Your task to perform on an android device: turn on priority inbox in the gmail app Image 0: 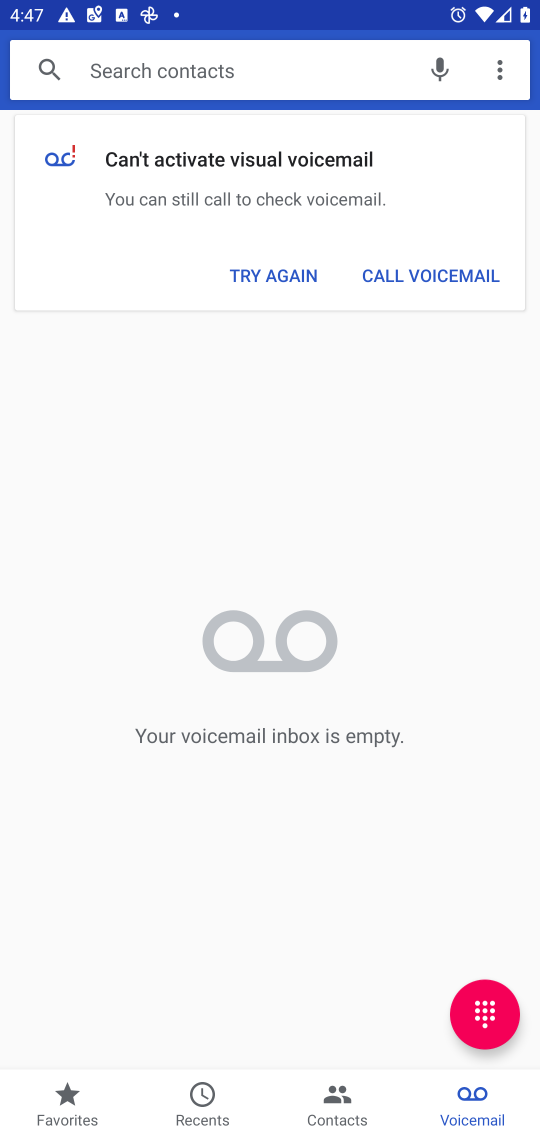
Step 0: press home button
Your task to perform on an android device: turn on priority inbox in the gmail app Image 1: 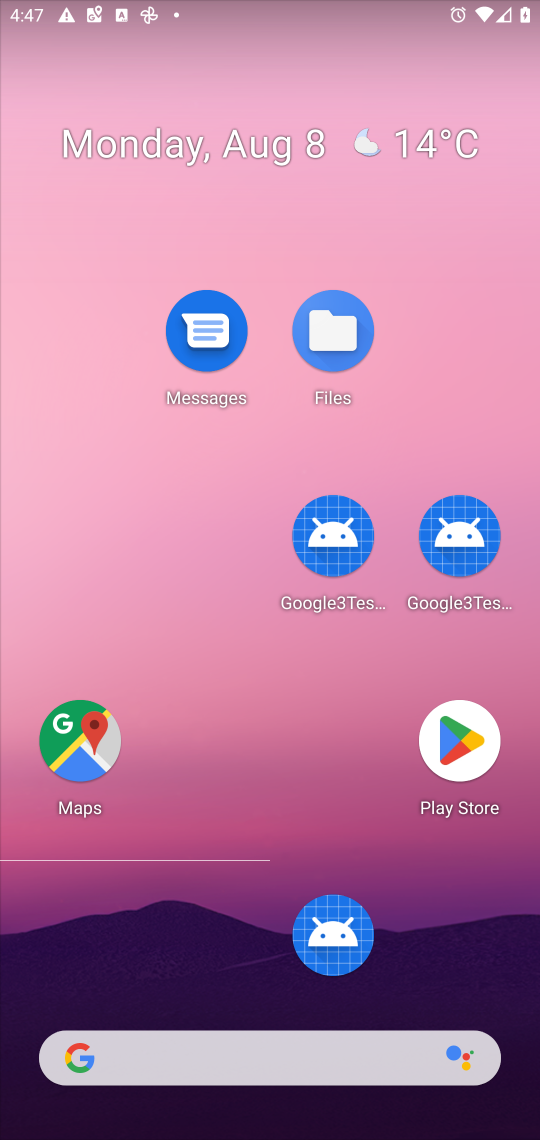
Step 1: drag from (374, 1055) to (443, 60)
Your task to perform on an android device: turn on priority inbox in the gmail app Image 2: 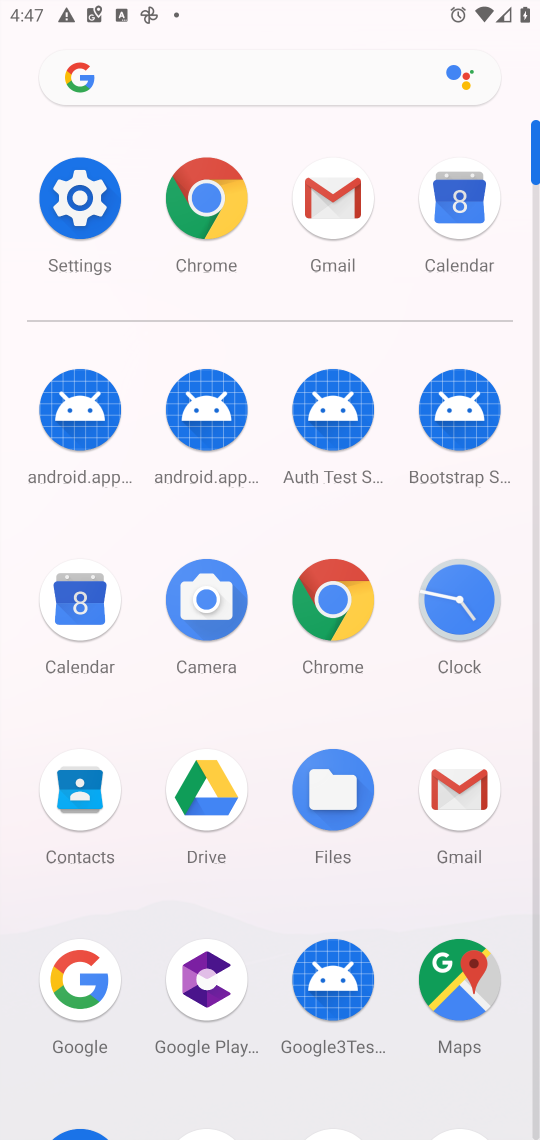
Step 2: click (466, 796)
Your task to perform on an android device: turn on priority inbox in the gmail app Image 3: 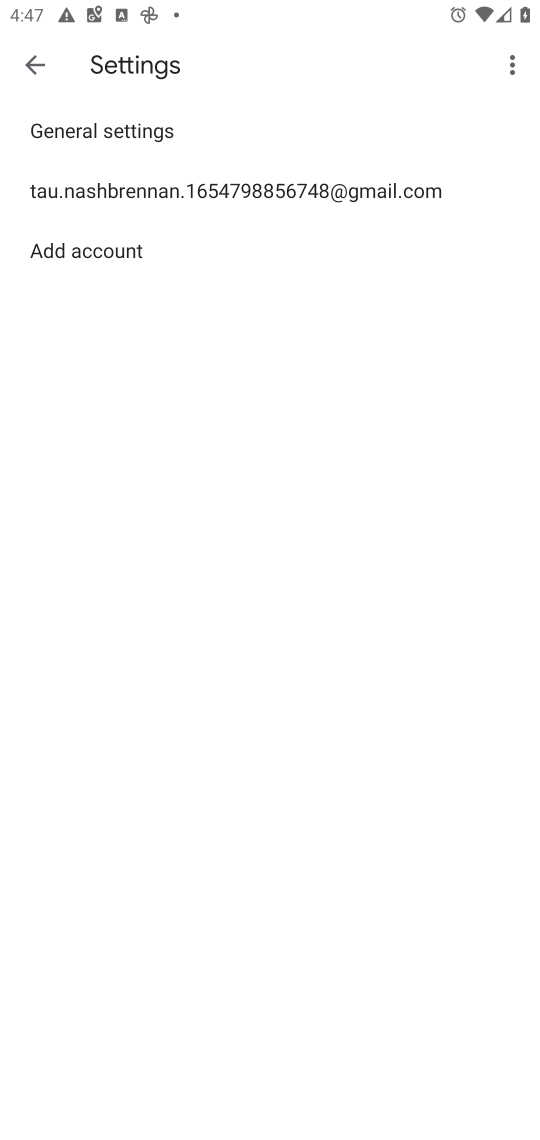
Step 3: click (360, 184)
Your task to perform on an android device: turn on priority inbox in the gmail app Image 4: 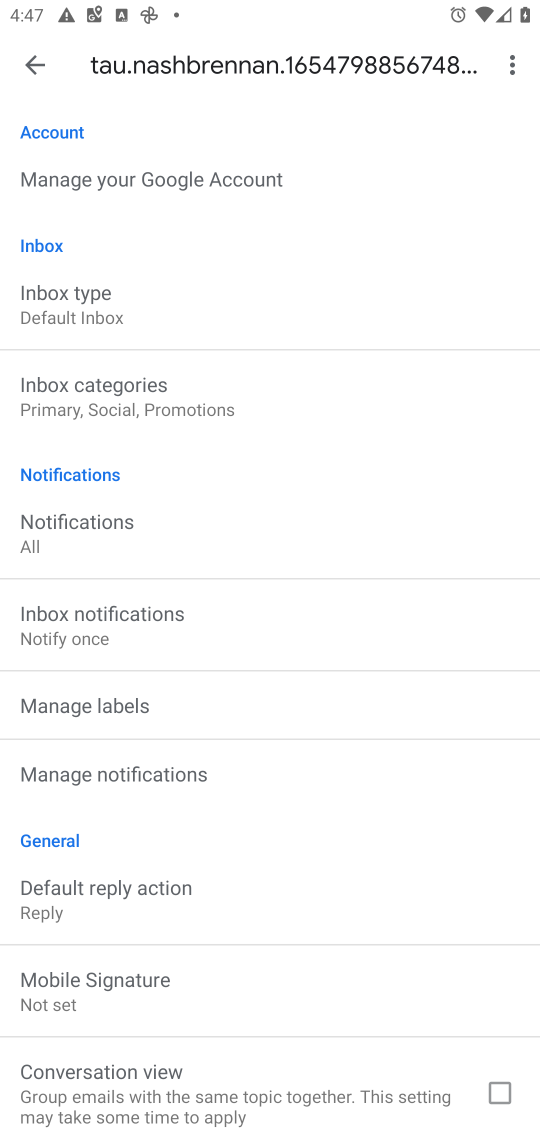
Step 4: drag from (240, 226) to (221, 812)
Your task to perform on an android device: turn on priority inbox in the gmail app Image 5: 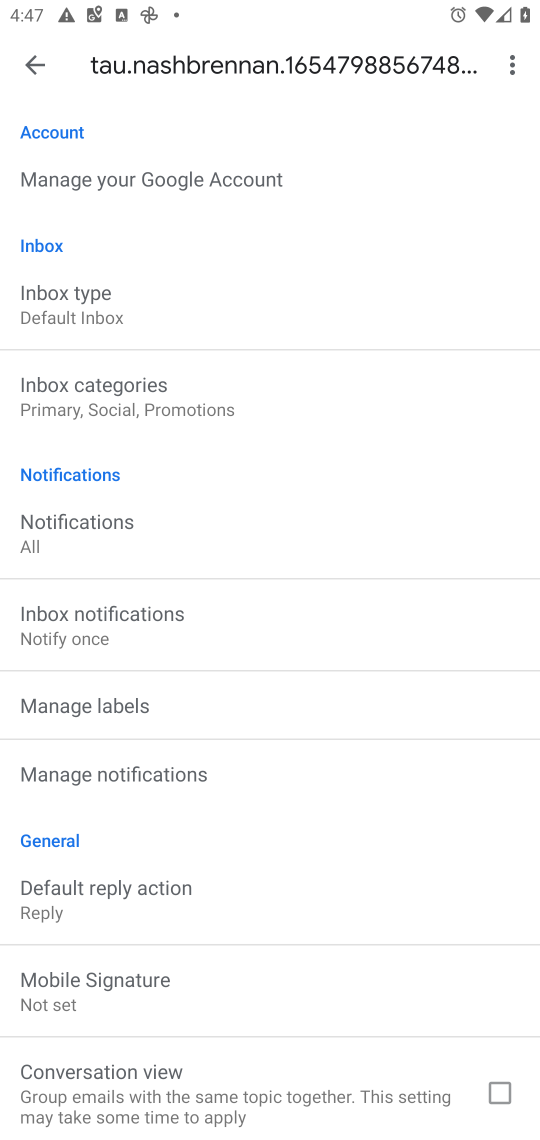
Step 5: click (84, 284)
Your task to perform on an android device: turn on priority inbox in the gmail app Image 6: 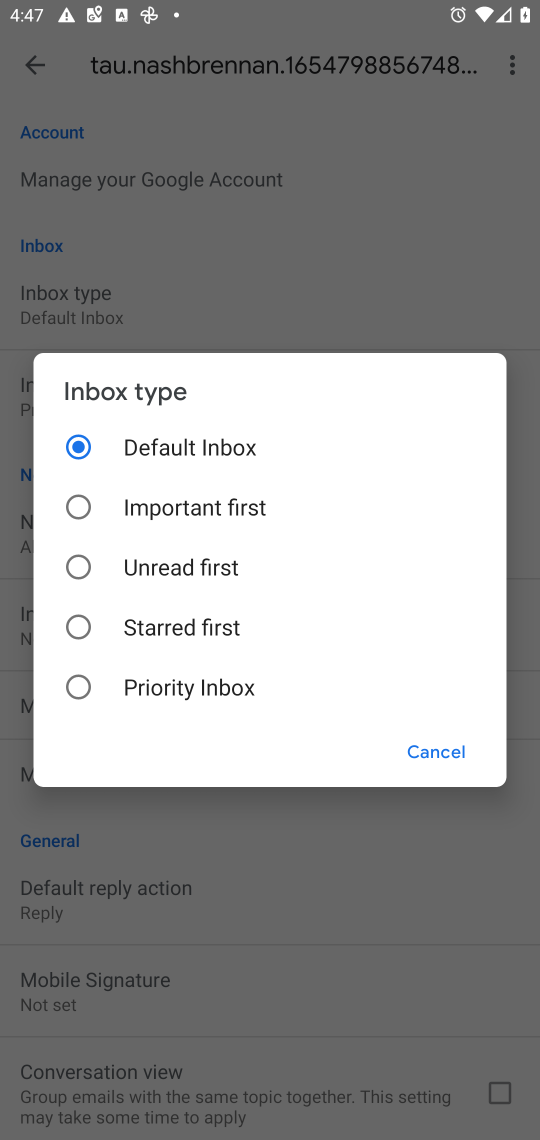
Step 6: click (77, 687)
Your task to perform on an android device: turn on priority inbox in the gmail app Image 7: 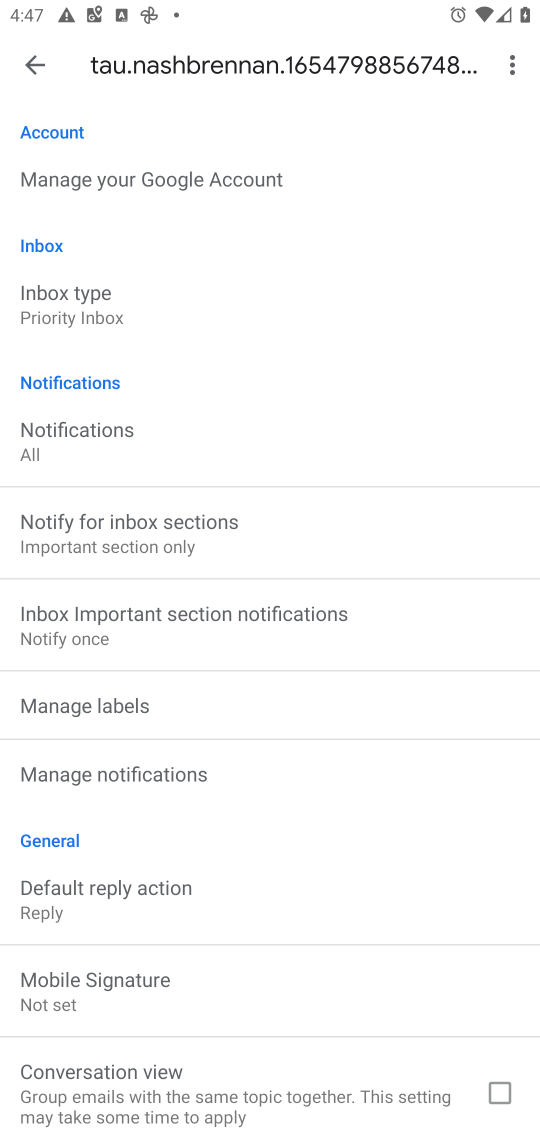
Step 7: task complete